Your task to perform on an android device: open app "TextNow: Call + Text Unlimited" Image 0: 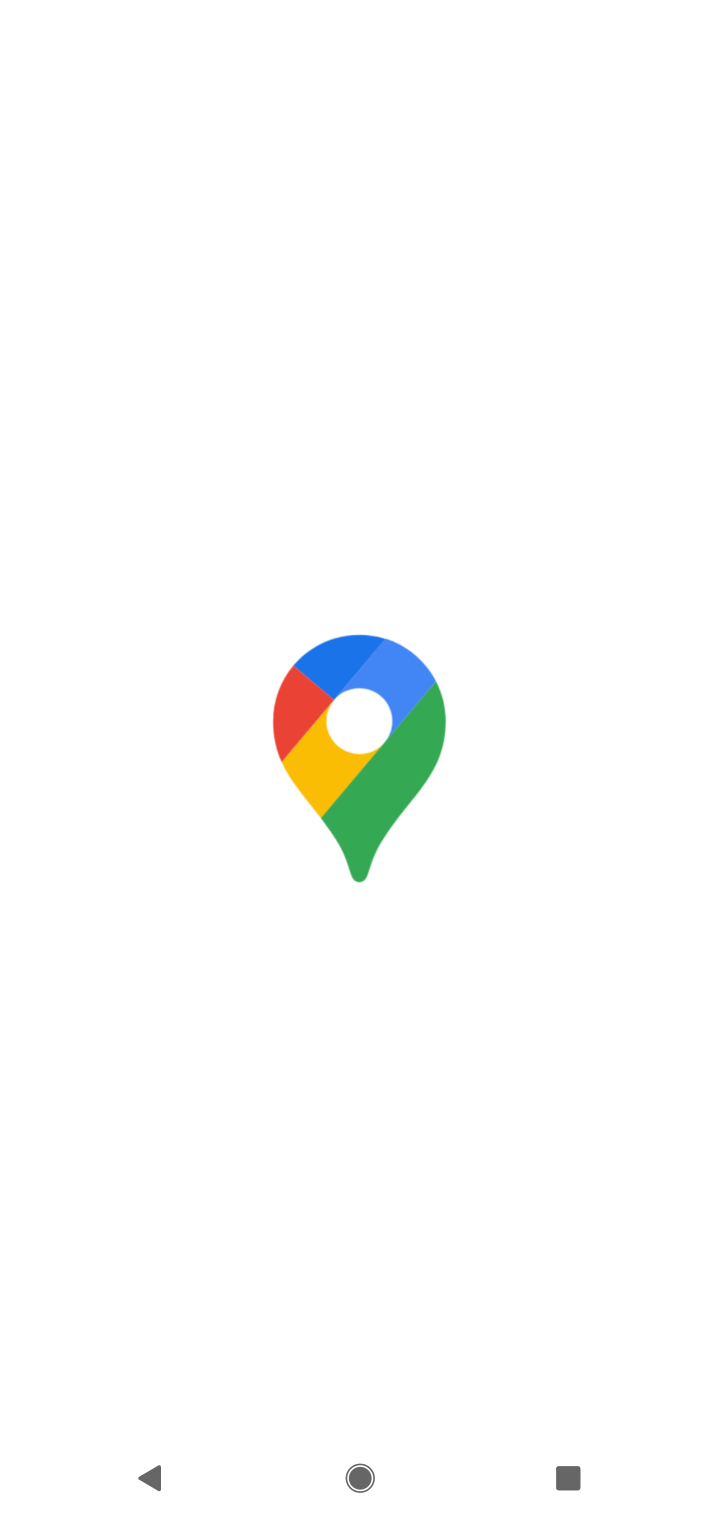
Step 0: press home button
Your task to perform on an android device: open app "TextNow: Call + Text Unlimited" Image 1: 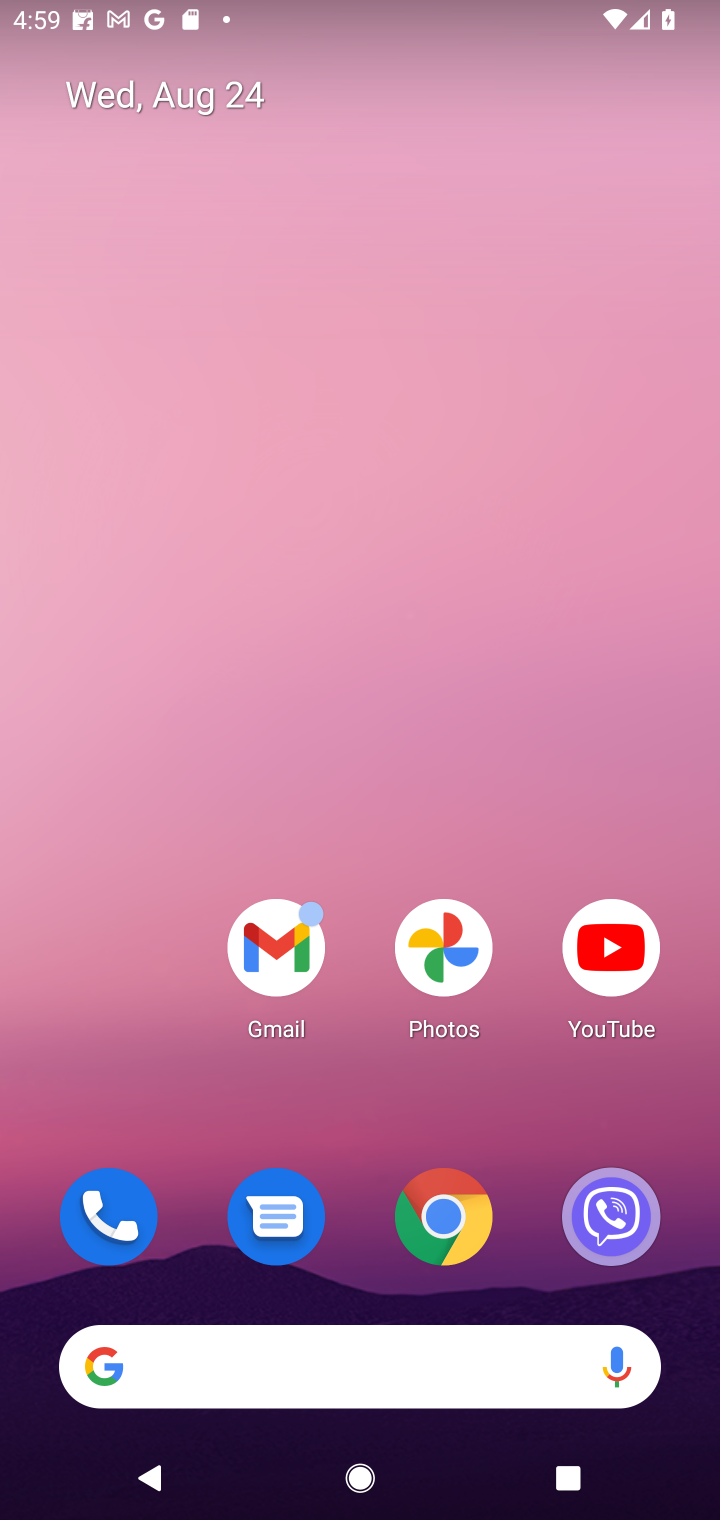
Step 1: drag from (358, 1110) to (429, 183)
Your task to perform on an android device: open app "TextNow: Call + Text Unlimited" Image 2: 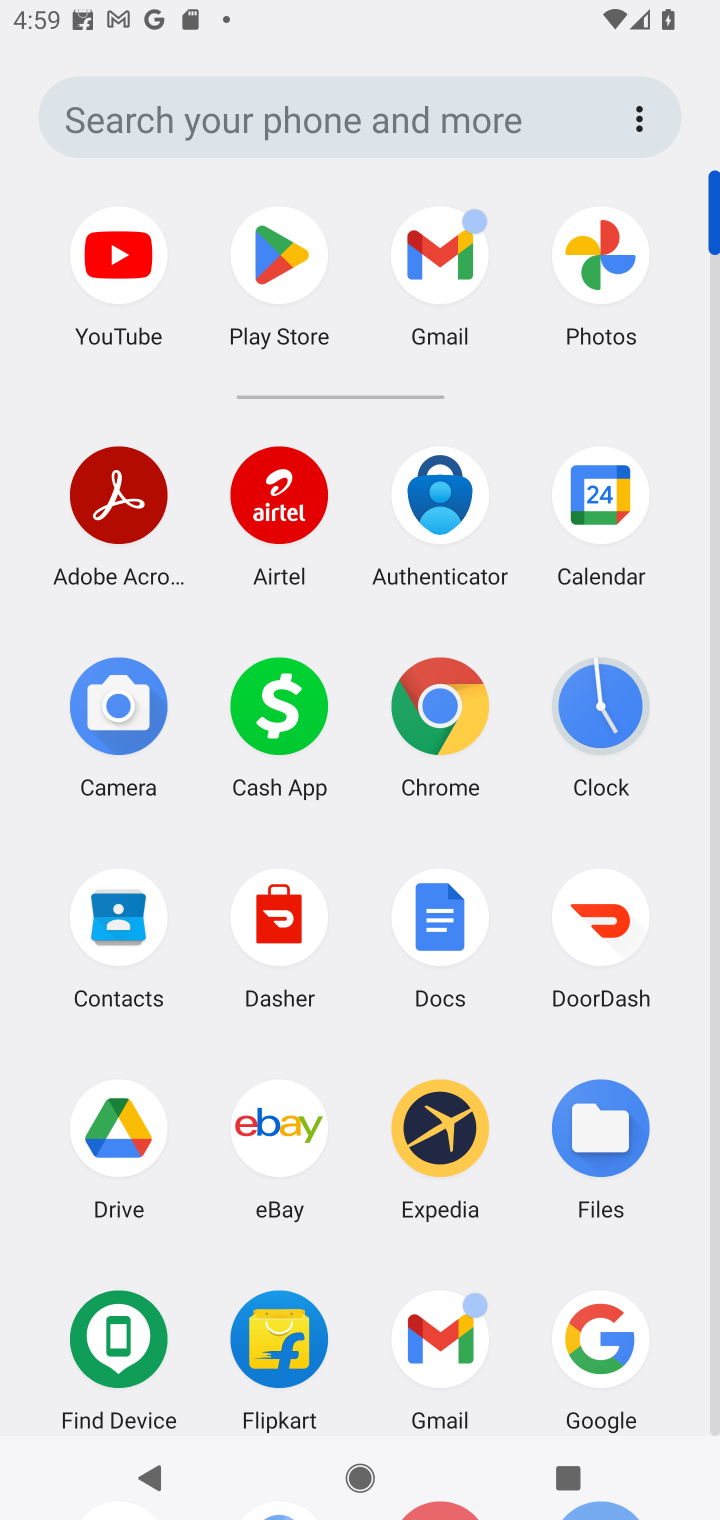
Step 2: click (280, 286)
Your task to perform on an android device: open app "TextNow: Call + Text Unlimited" Image 3: 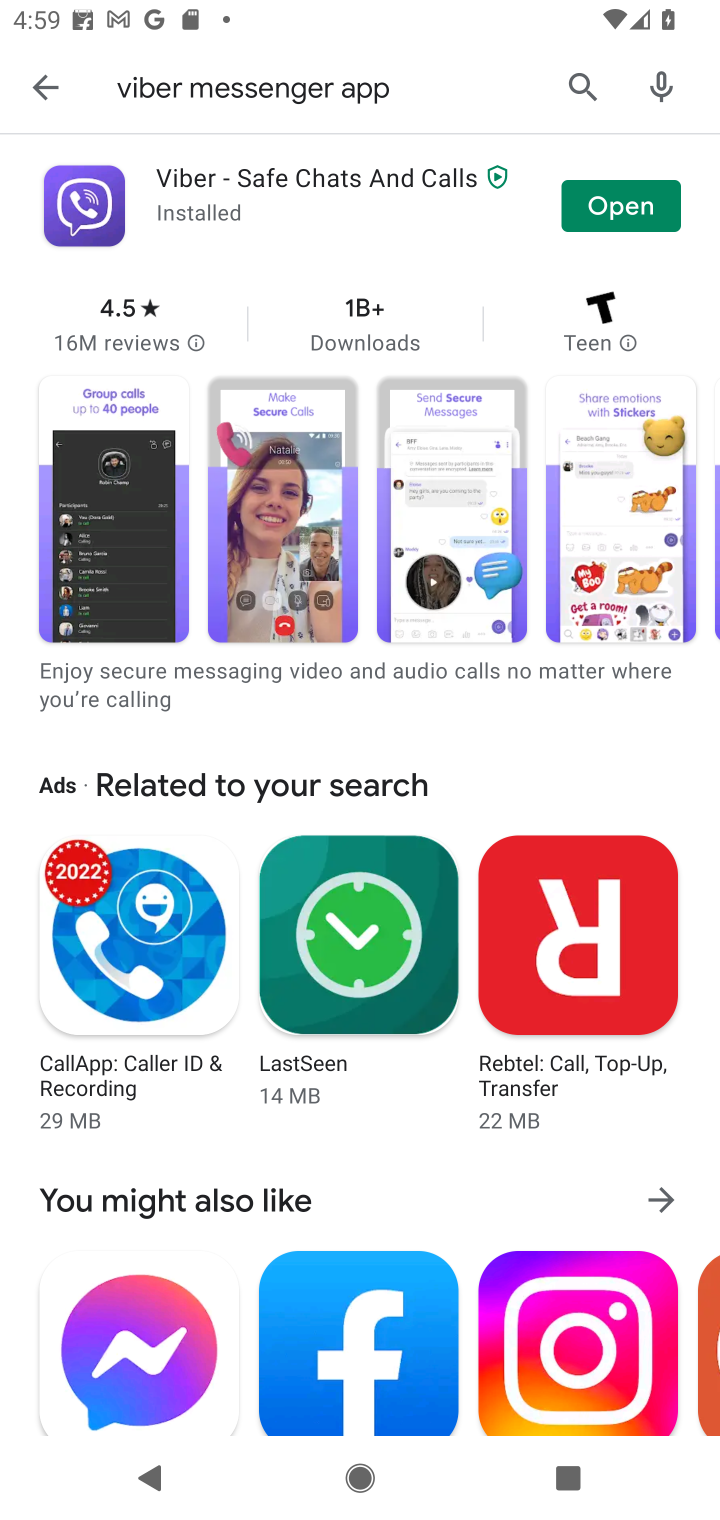
Step 3: click (589, 86)
Your task to perform on an android device: open app "TextNow: Call + Text Unlimited" Image 4: 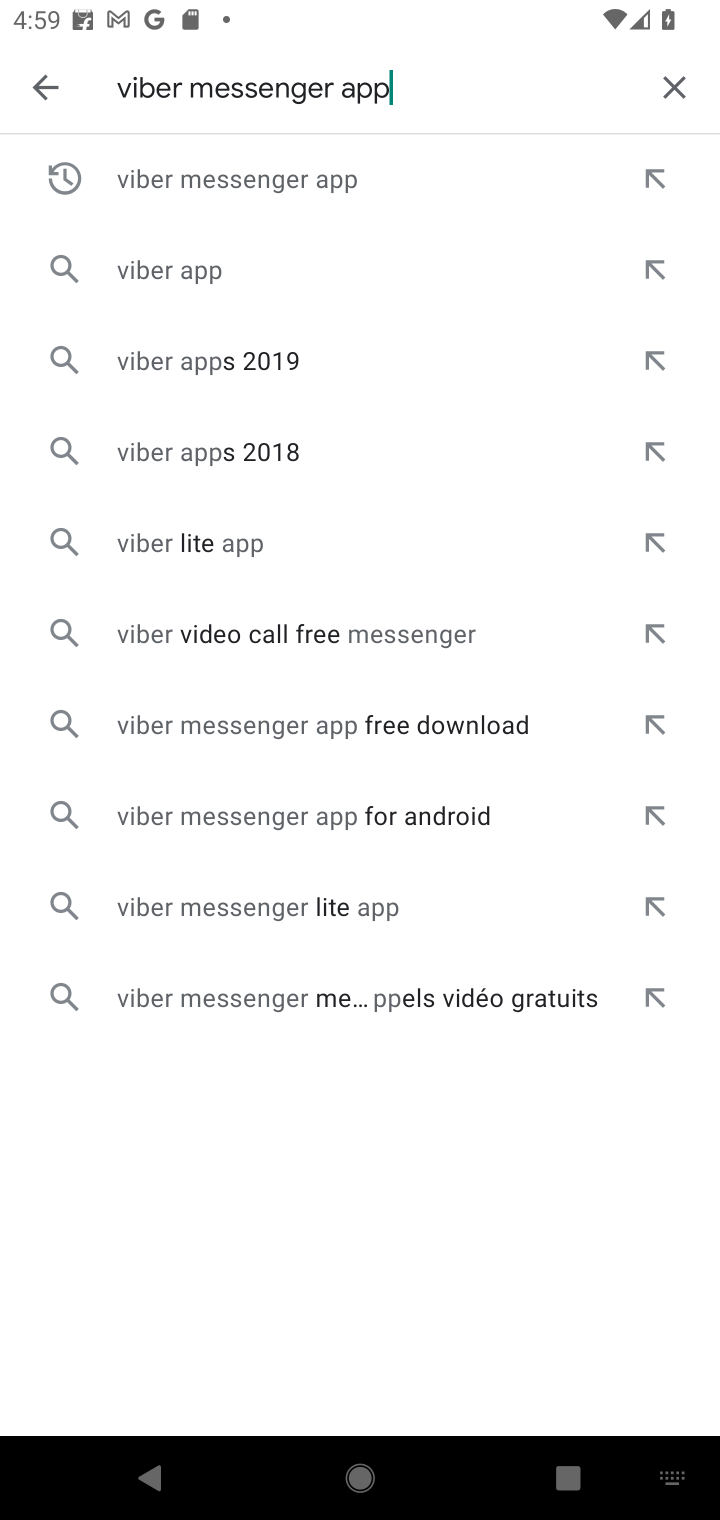
Step 4: click (653, 68)
Your task to perform on an android device: open app "TextNow: Call + Text Unlimited" Image 5: 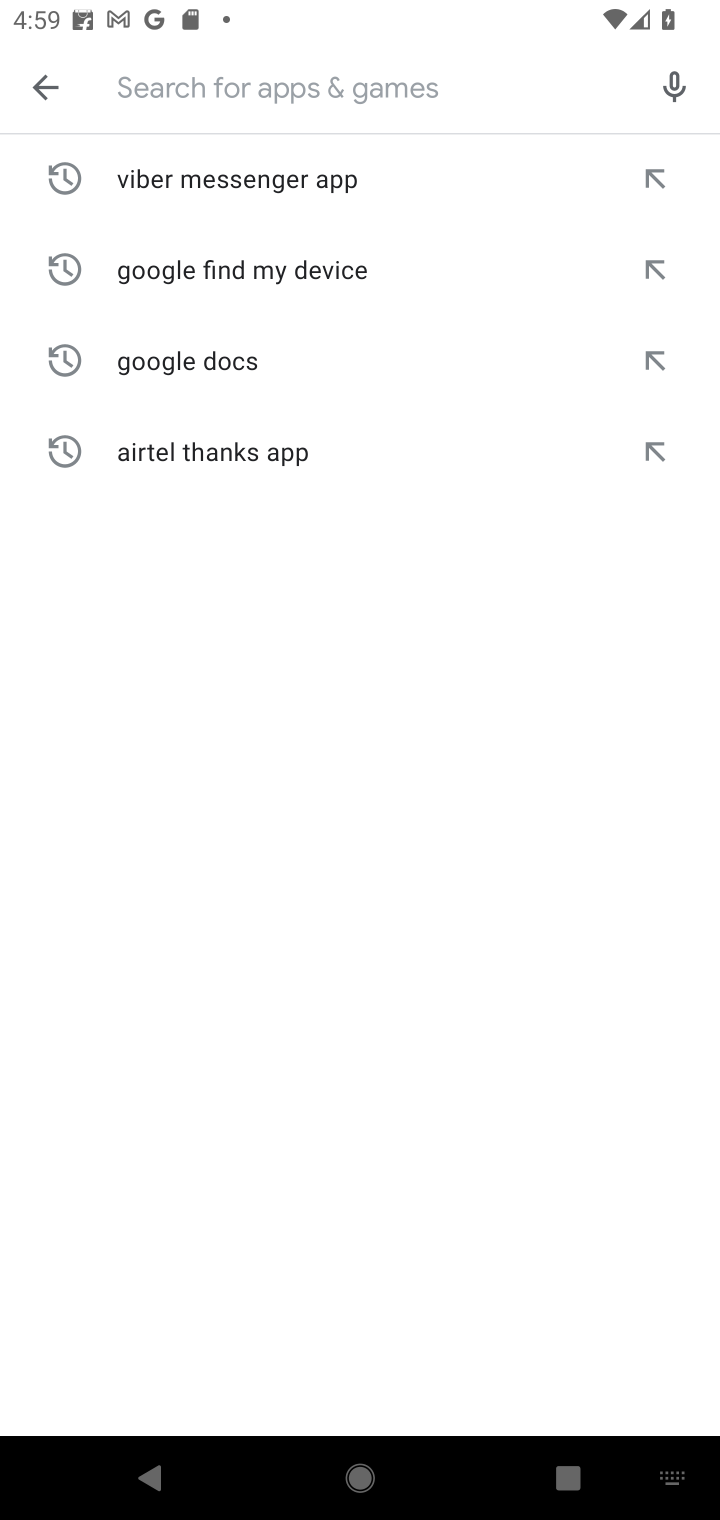
Step 5: type "TextNow: Call + Text Unlimite"
Your task to perform on an android device: open app "TextNow: Call + Text Unlimited" Image 6: 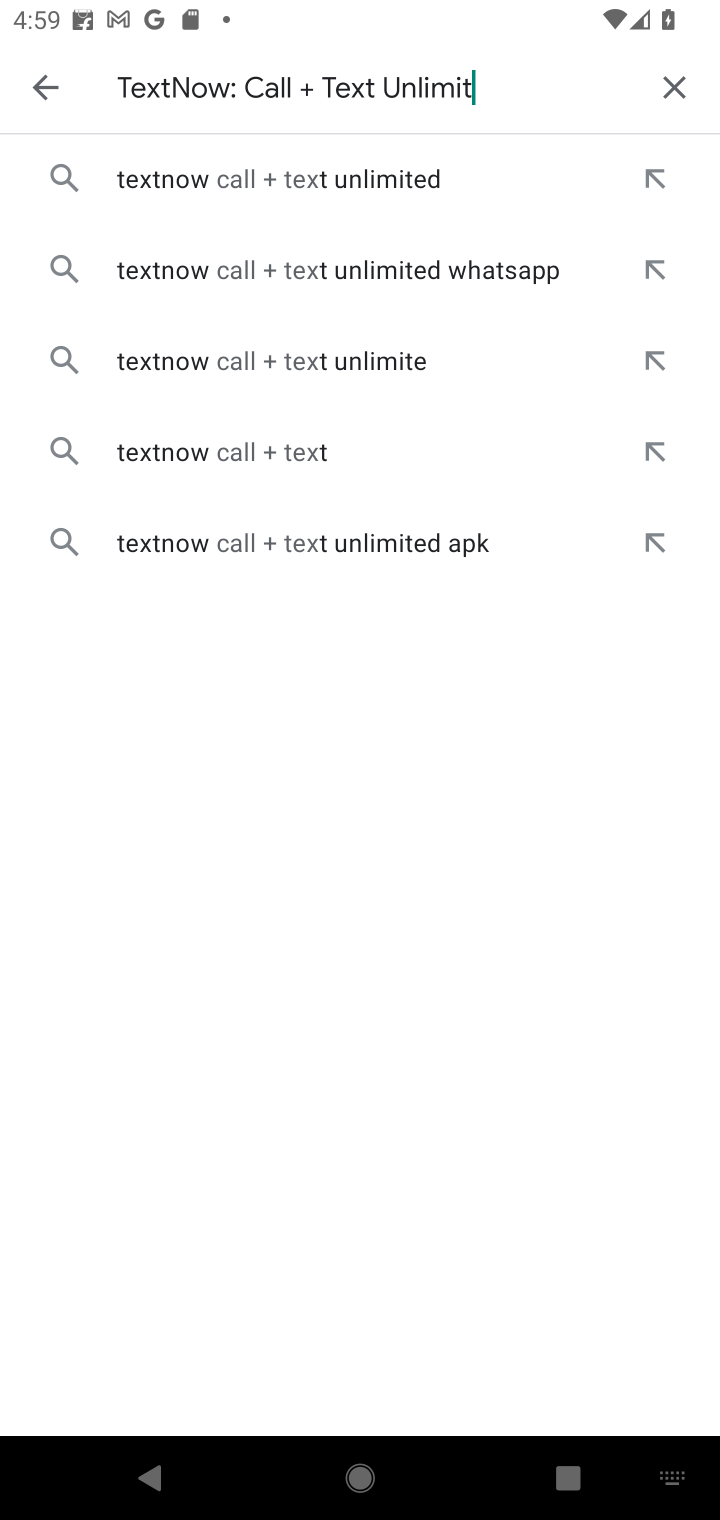
Step 6: type ""
Your task to perform on an android device: open app "TextNow: Call + Text Unlimited" Image 7: 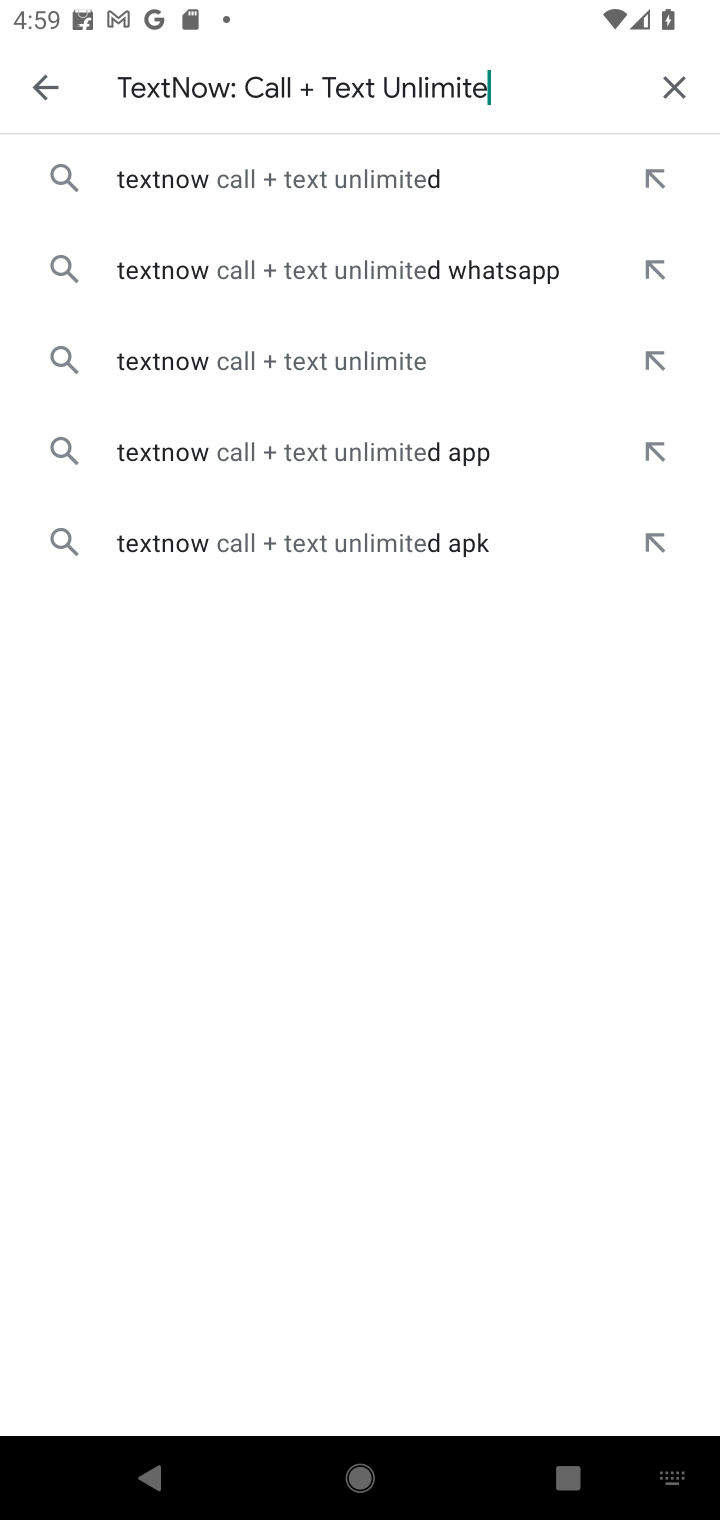
Step 7: click (309, 177)
Your task to perform on an android device: open app "TextNow: Call + Text Unlimited" Image 8: 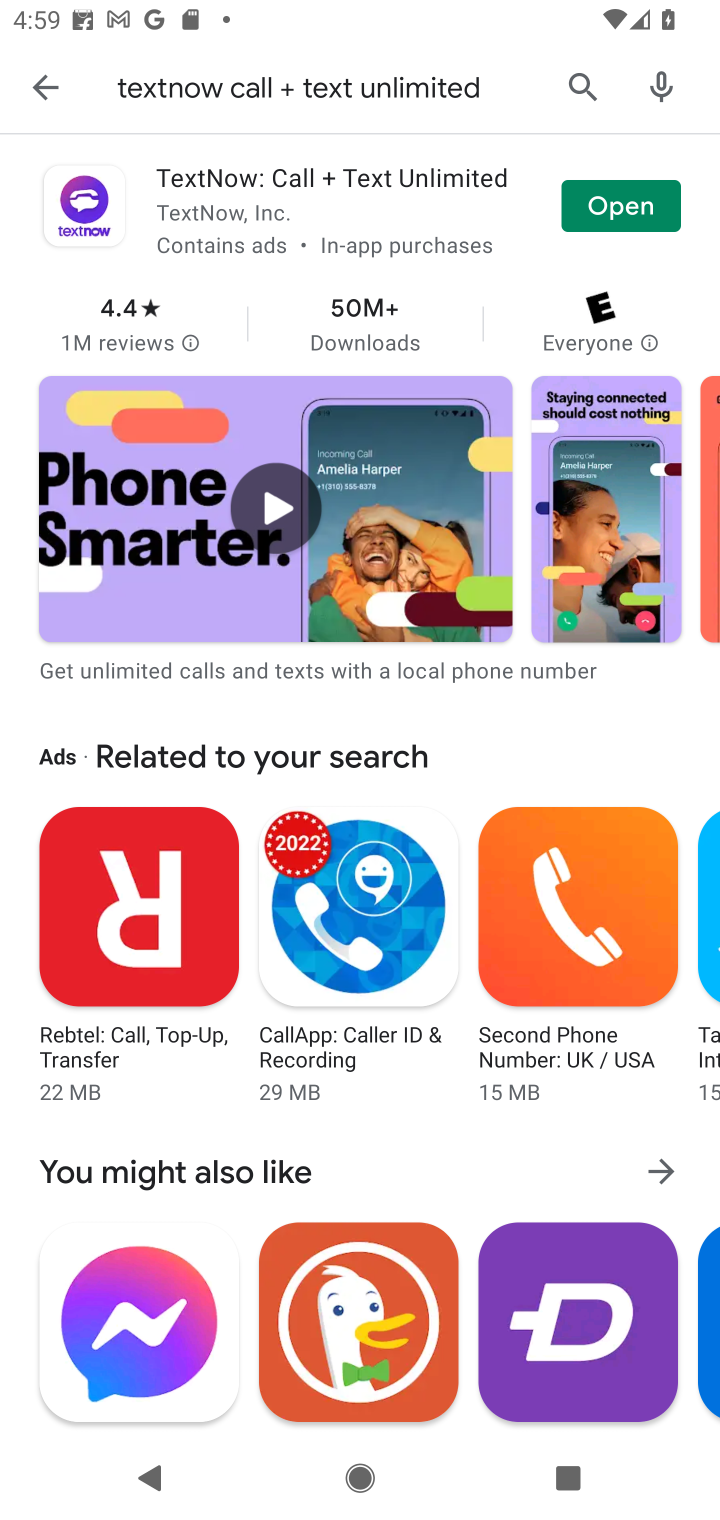
Step 8: click (638, 212)
Your task to perform on an android device: open app "TextNow: Call + Text Unlimited" Image 9: 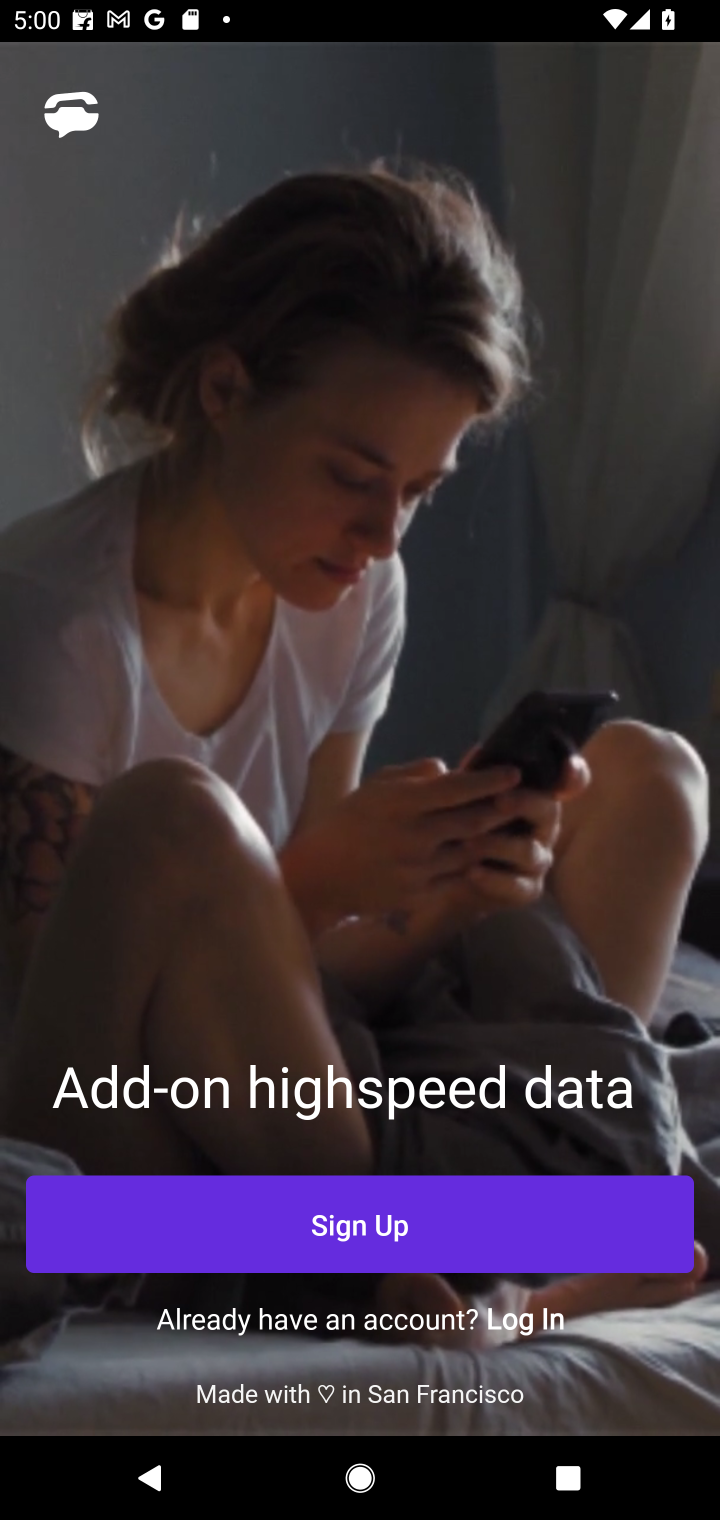
Step 9: task complete